Your task to perform on an android device: Toggle the flashlight Image 0: 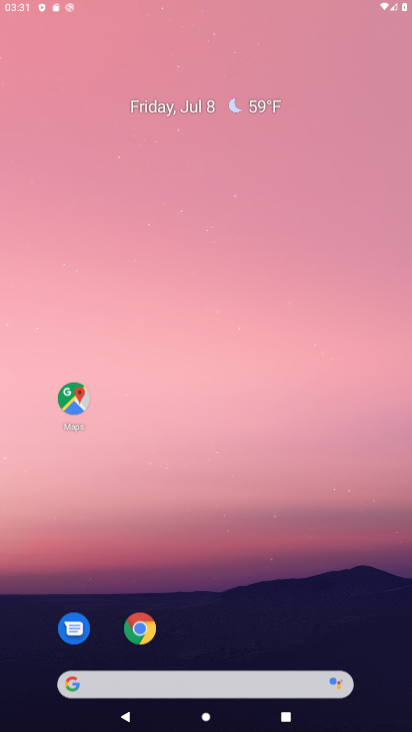
Step 0: press home button
Your task to perform on an android device: Toggle the flashlight Image 1: 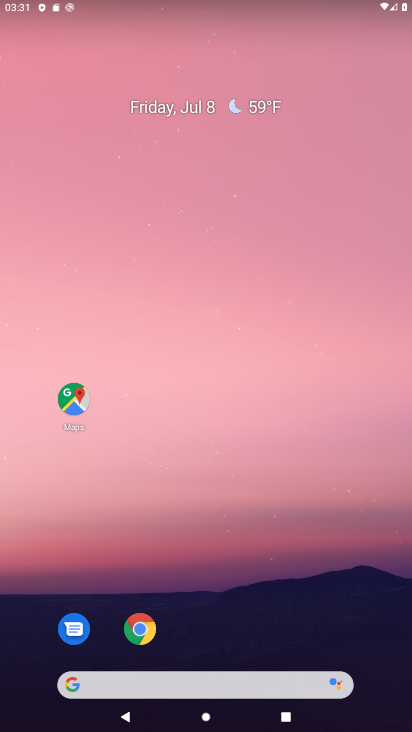
Step 1: drag from (209, 643) to (207, 125)
Your task to perform on an android device: Toggle the flashlight Image 2: 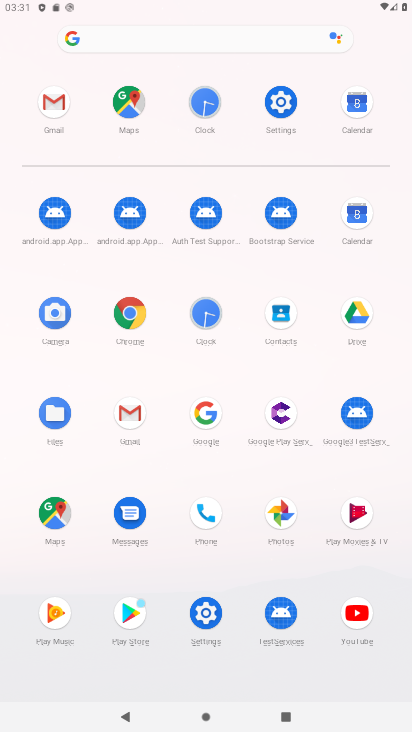
Step 2: click (276, 106)
Your task to perform on an android device: Toggle the flashlight Image 3: 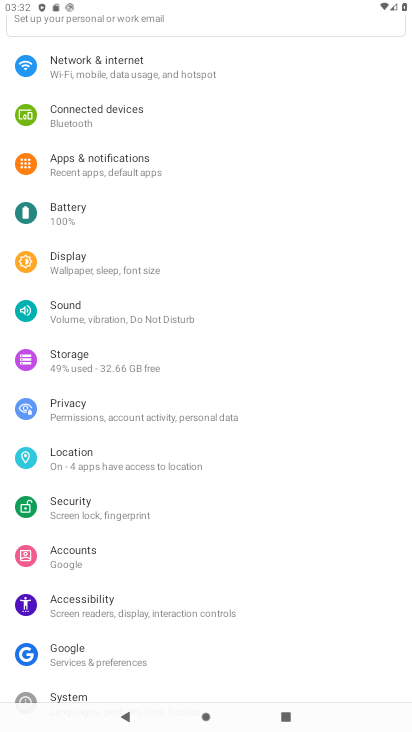
Step 3: drag from (158, 87) to (165, 545)
Your task to perform on an android device: Toggle the flashlight Image 4: 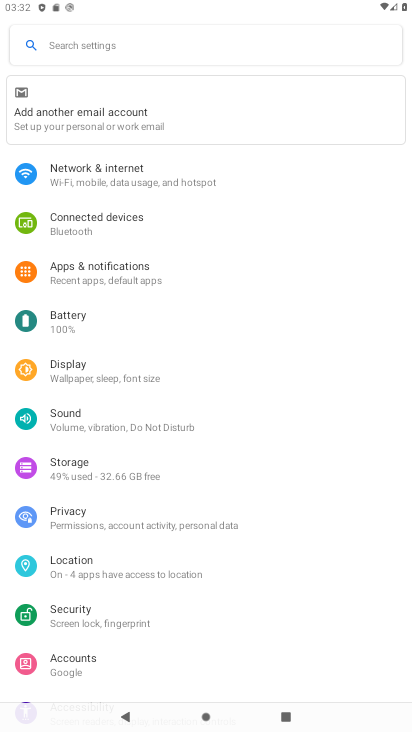
Step 4: click (117, 37)
Your task to perform on an android device: Toggle the flashlight Image 5: 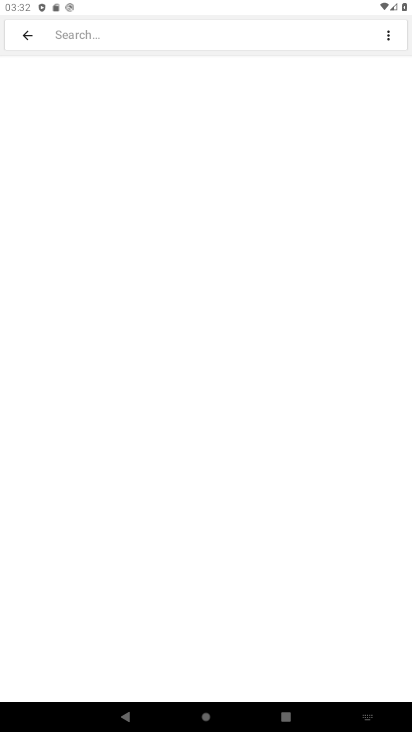
Step 5: type "flashlight"
Your task to perform on an android device: Toggle the flashlight Image 6: 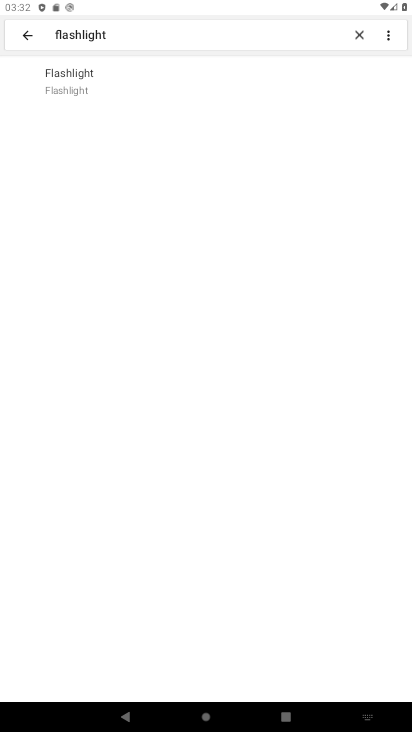
Step 6: click (102, 79)
Your task to perform on an android device: Toggle the flashlight Image 7: 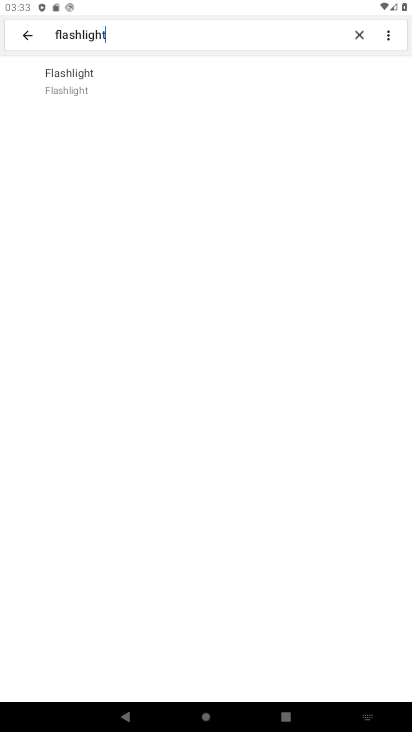
Step 7: click (101, 85)
Your task to perform on an android device: Toggle the flashlight Image 8: 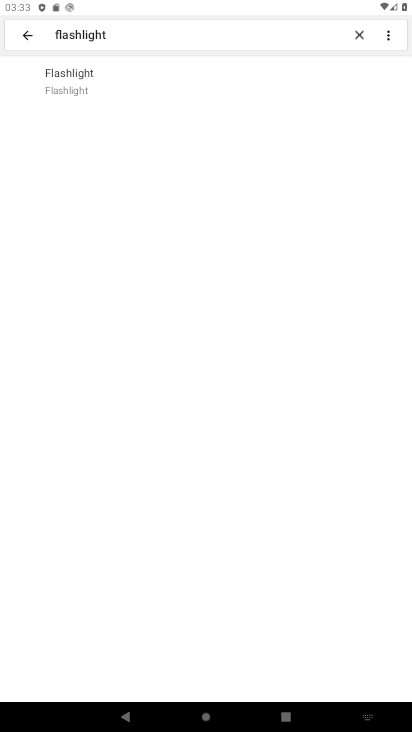
Step 8: task complete